Your task to perform on an android device: Go to settings Image 0: 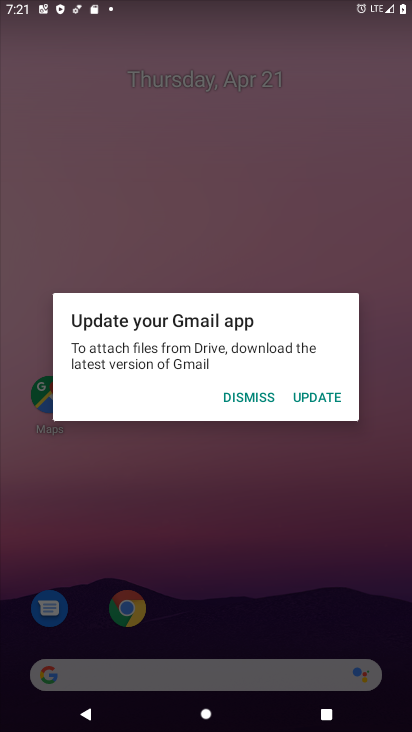
Step 0: press home button
Your task to perform on an android device: Go to settings Image 1: 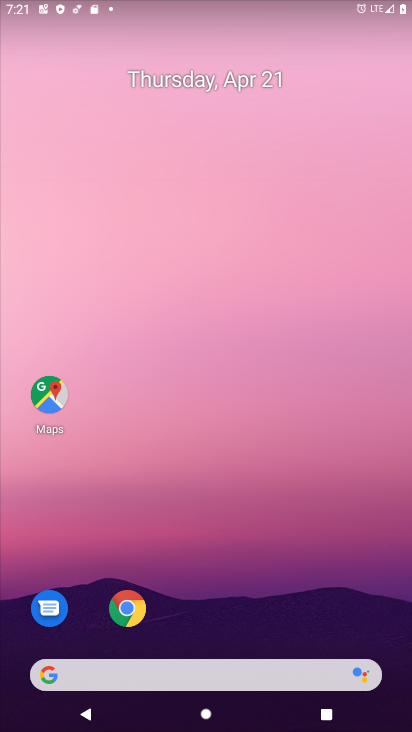
Step 1: drag from (256, 556) to (240, 226)
Your task to perform on an android device: Go to settings Image 2: 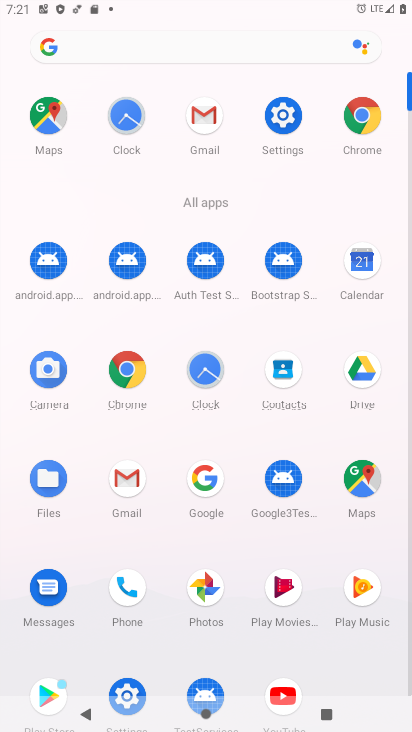
Step 2: click (286, 124)
Your task to perform on an android device: Go to settings Image 3: 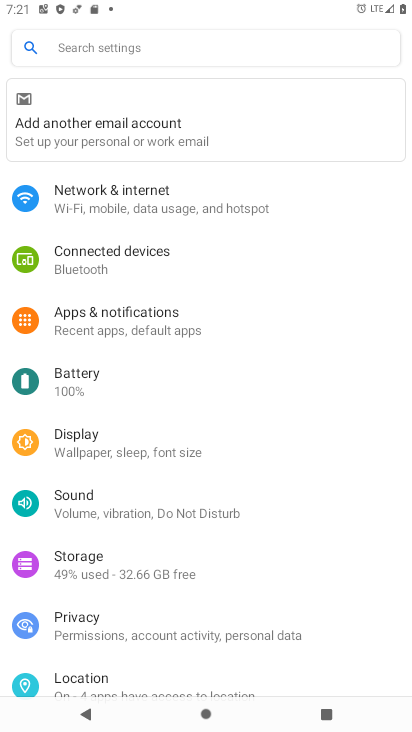
Step 3: task complete